Your task to perform on an android device: What's a good restaurant in San Francisco? Image 0: 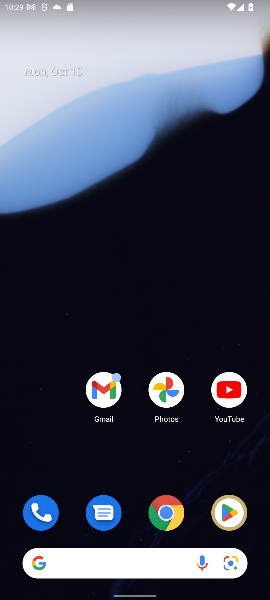
Step 0: drag from (105, 313) to (103, 45)
Your task to perform on an android device: What's a good restaurant in San Francisco? Image 1: 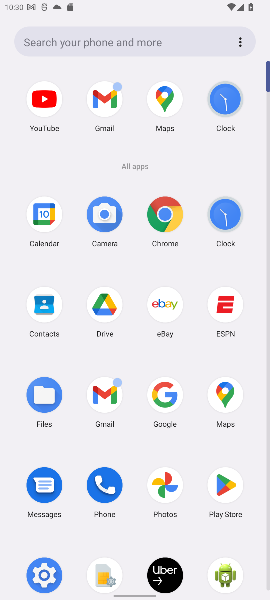
Step 1: click (160, 405)
Your task to perform on an android device: What's a good restaurant in San Francisco? Image 2: 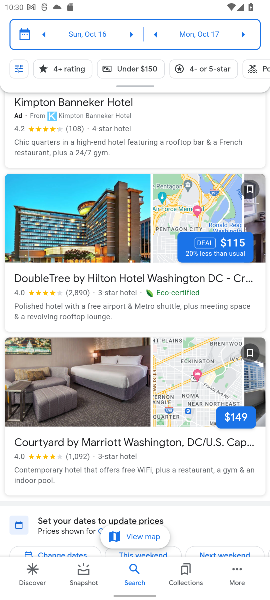
Step 2: drag from (138, 253) to (88, 583)
Your task to perform on an android device: What's a good restaurant in San Francisco? Image 3: 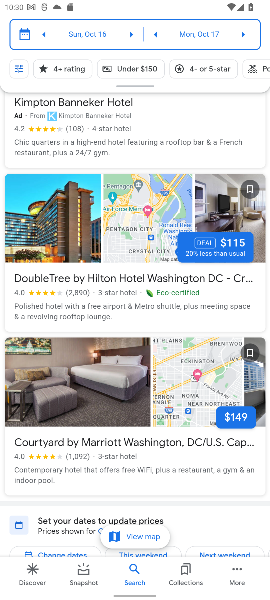
Step 3: drag from (138, 408) to (126, 456)
Your task to perform on an android device: What's a good restaurant in San Francisco? Image 4: 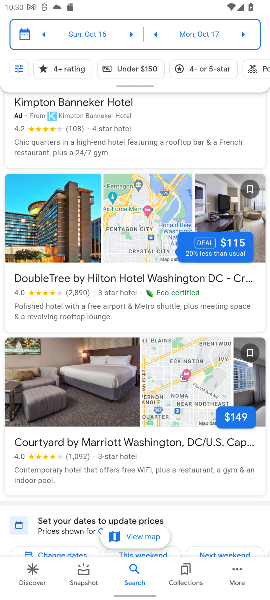
Step 4: press back button
Your task to perform on an android device: What's a good restaurant in San Francisco? Image 5: 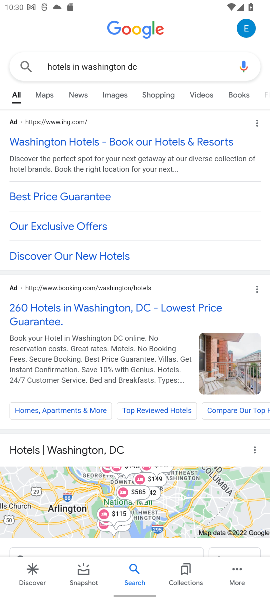
Step 5: click (171, 62)
Your task to perform on an android device: What's a good restaurant in San Francisco? Image 6: 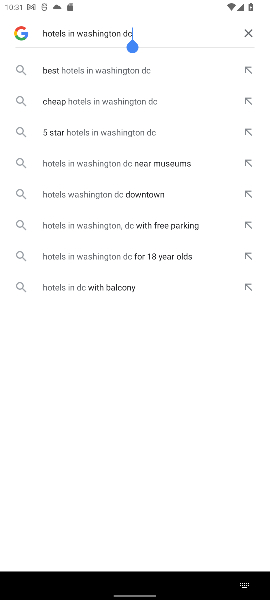
Step 6: click (247, 31)
Your task to perform on an android device: What's a good restaurant in San Francisco? Image 7: 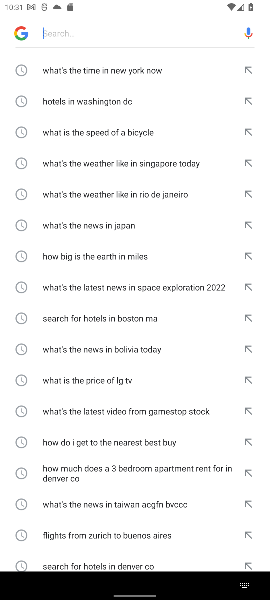
Step 7: type "What's a good restaurant in San Francisco?"
Your task to perform on an android device: What's a good restaurant in San Francisco? Image 8: 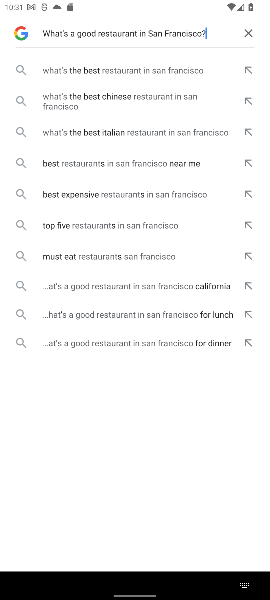
Step 8: click (149, 64)
Your task to perform on an android device: What's a good restaurant in San Francisco? Image 9: 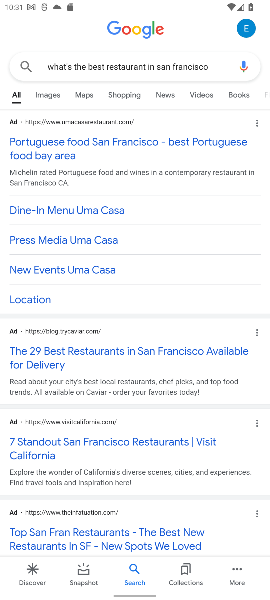
Step 9: drag from (151, 422) to (155, 105)
Your task to perform on an android device: What's a good restaurant in San Francisco? Image 10: 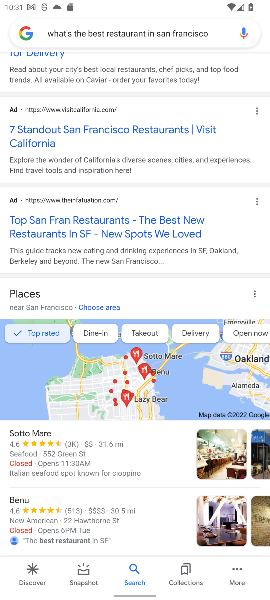
Step 10: drag from (160, 446) to (161, 155)
Your task to perform on an android device: What's a good restaurant in San Francisco? Image 11: 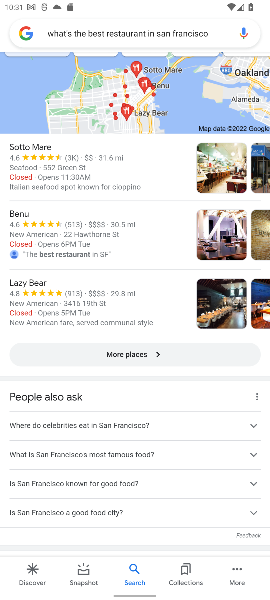
Step 11: click (141, 351)
Your task to perform on an android device: What's a good restaurant in San Francisco? Image 12: 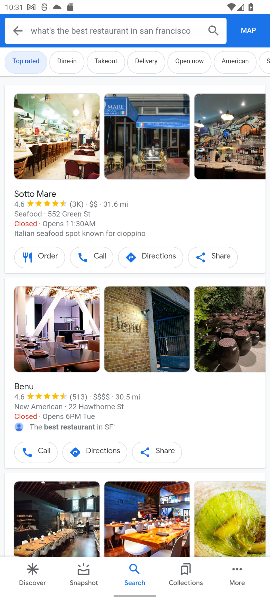
Step 12: task complete